Your task to perform on an android device: Open internet settings Image 0: 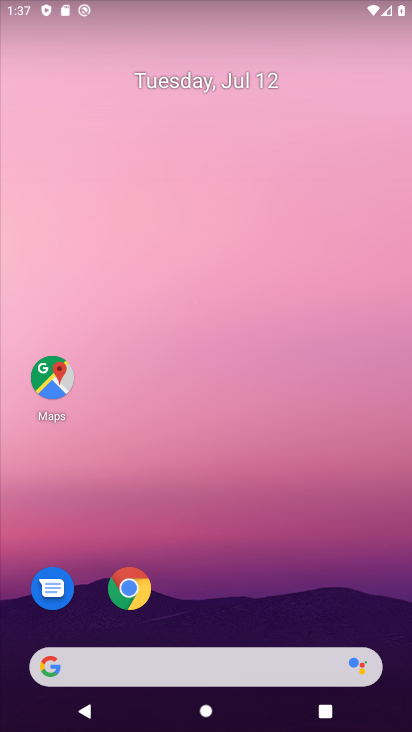
Step 0: drag from (325, 6) to (227, 675)
Your task to perform on an android device: Open internet settings Image 1: 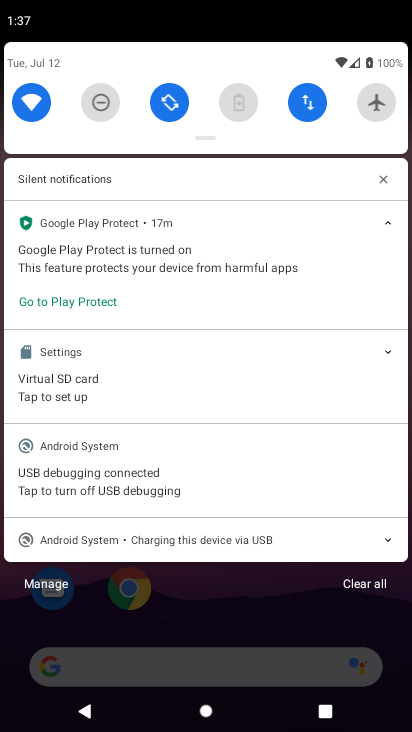
Step 1: click (316, 121)
Your task to perform on an android device: Open internet settings Image 2: 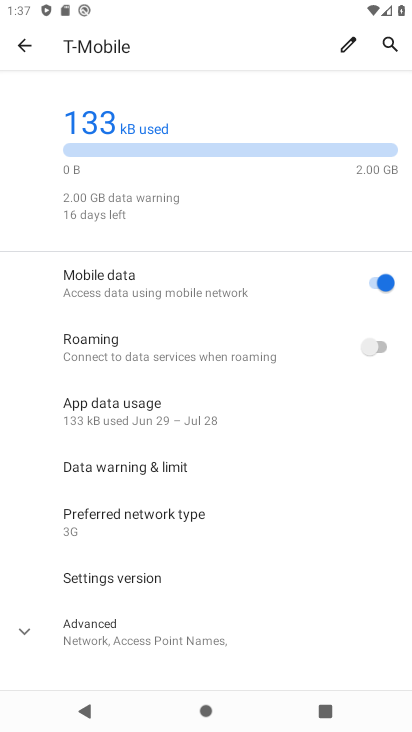
Step 2: task complete